Your task to perform on an android device: Open Reddit.com Image 0: 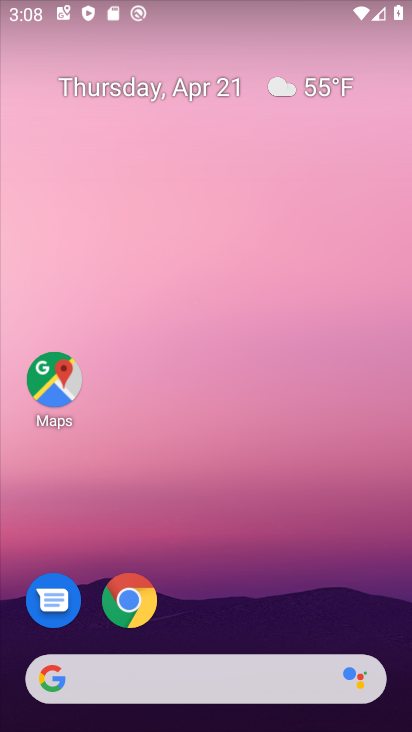
Step 0: drag from (230, 648) to (365, 167)
Your task to perform on an android device: Open Reddit.com Image 1: 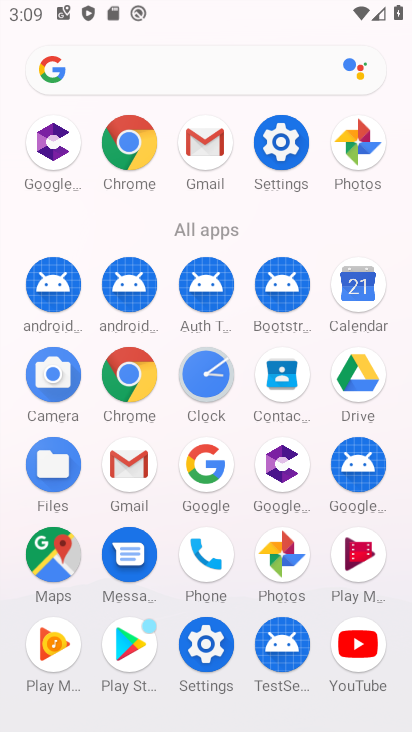
Step 1: click (136, 155)
Your task to perform on an android device: Open Reddit.com Image 2: 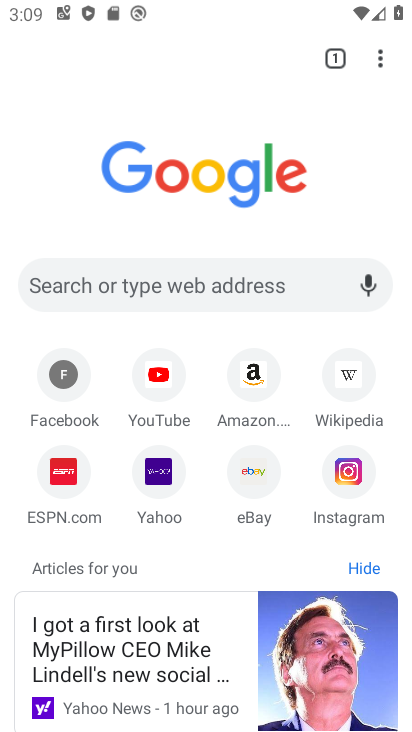
Step 2: click (179, 281)
Your task to perform on an android device: Open Reddit.com Image 3: 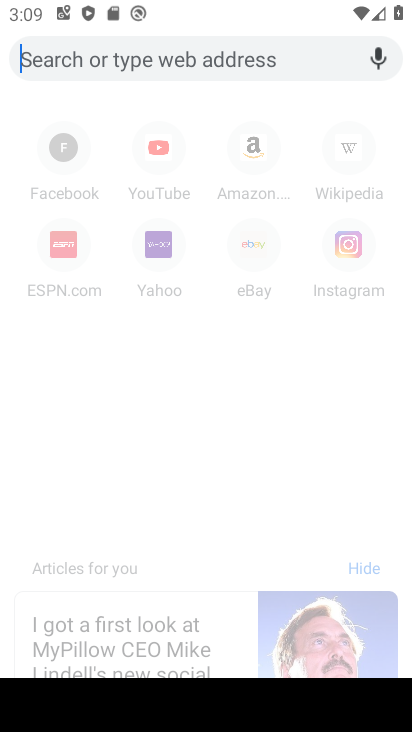
Step 3: type "reddit.com"
Your task to perform on an android device: Open Reddit.com Image 4: 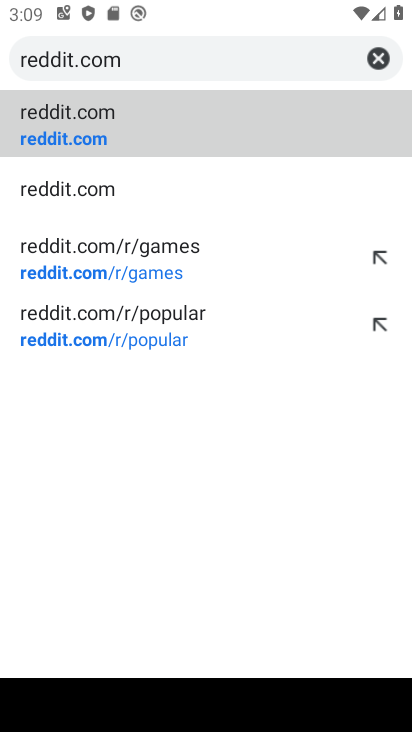
Step 4: click (96, 135)
Your task to perform on an android device: Open Reddit.com Image 5: 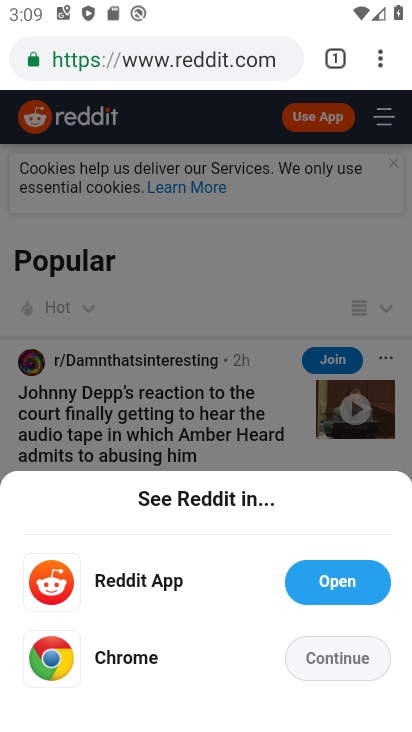
Step 5: click (340, 582)
Your task to perform on an android device: Open Reddit.com Image 6: 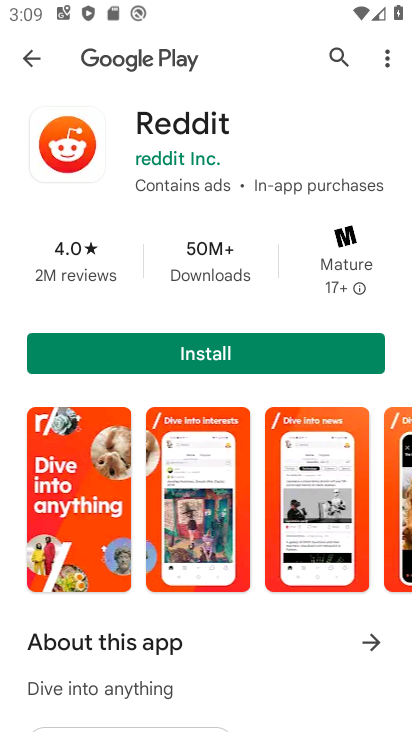
Step 6: task complete